Your task to perform on an android device: Open Amazon Image 0: 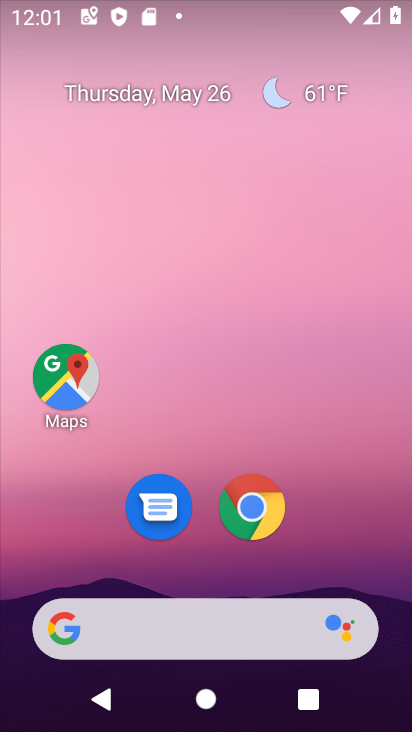
Step 0: click (243, 525)
Your task to perform on an android device: Open Amazon Image 1: 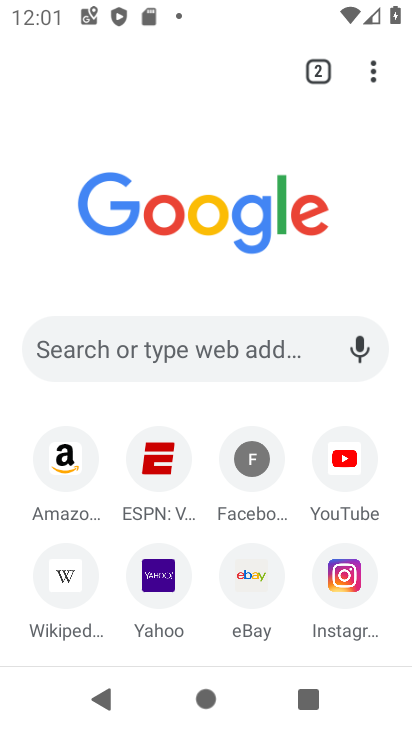
Step 1: click (84, 454)
Your task to perform on an android device: Open Amazon Image 2: 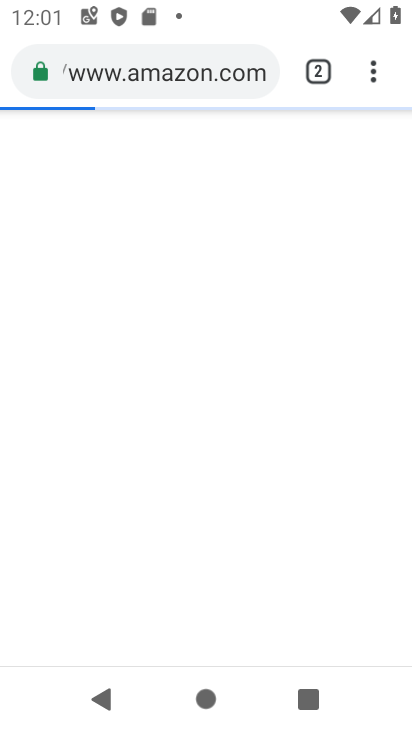
Step 2: task complete